Your task to perform on an android device: Search for energizer triple a on ebay.com, select the first entry, add it to the cart, then select checkout. Image 0: 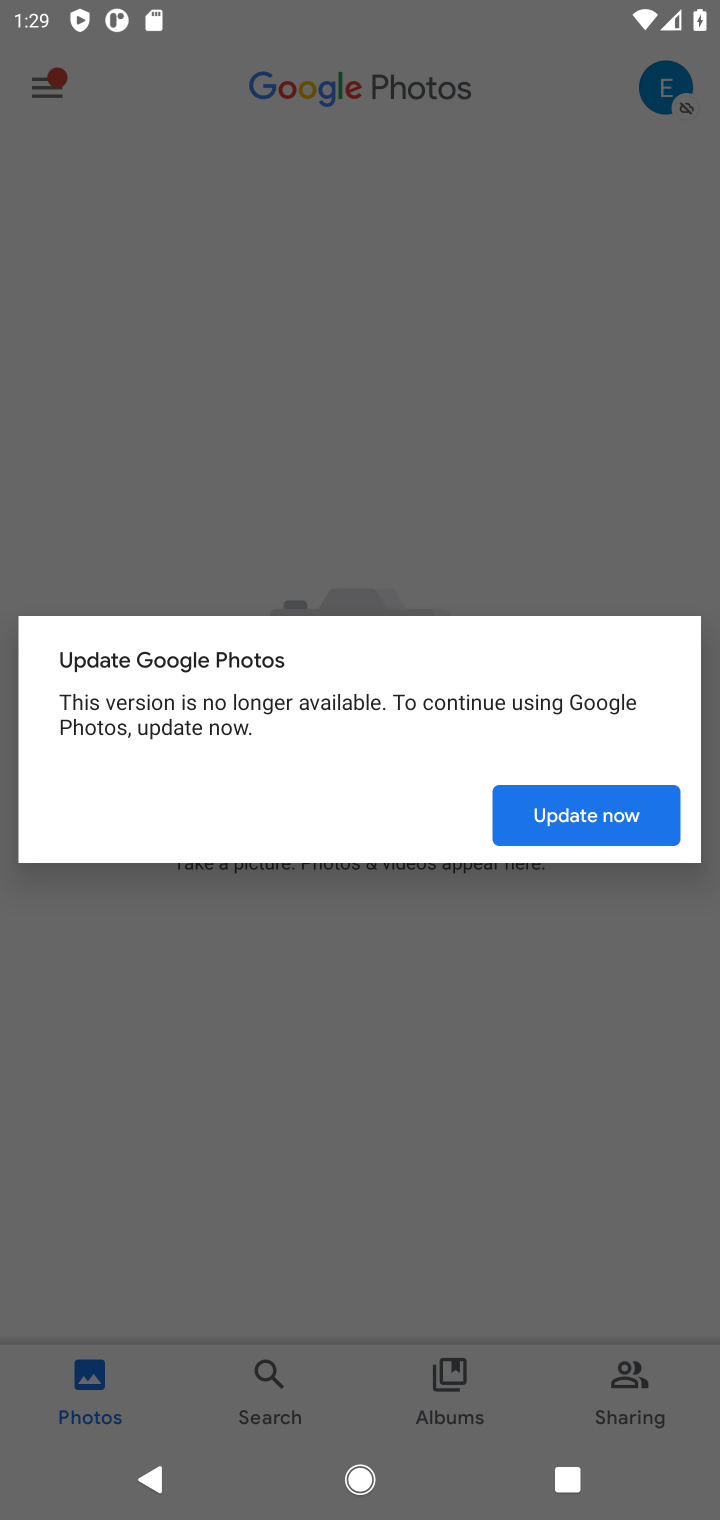
Step 0: press home button
Your task to perform on an android device: Search for energizer triple a on ebay.com, select the first entry, add it to the cart, then select checkout. Image 1: 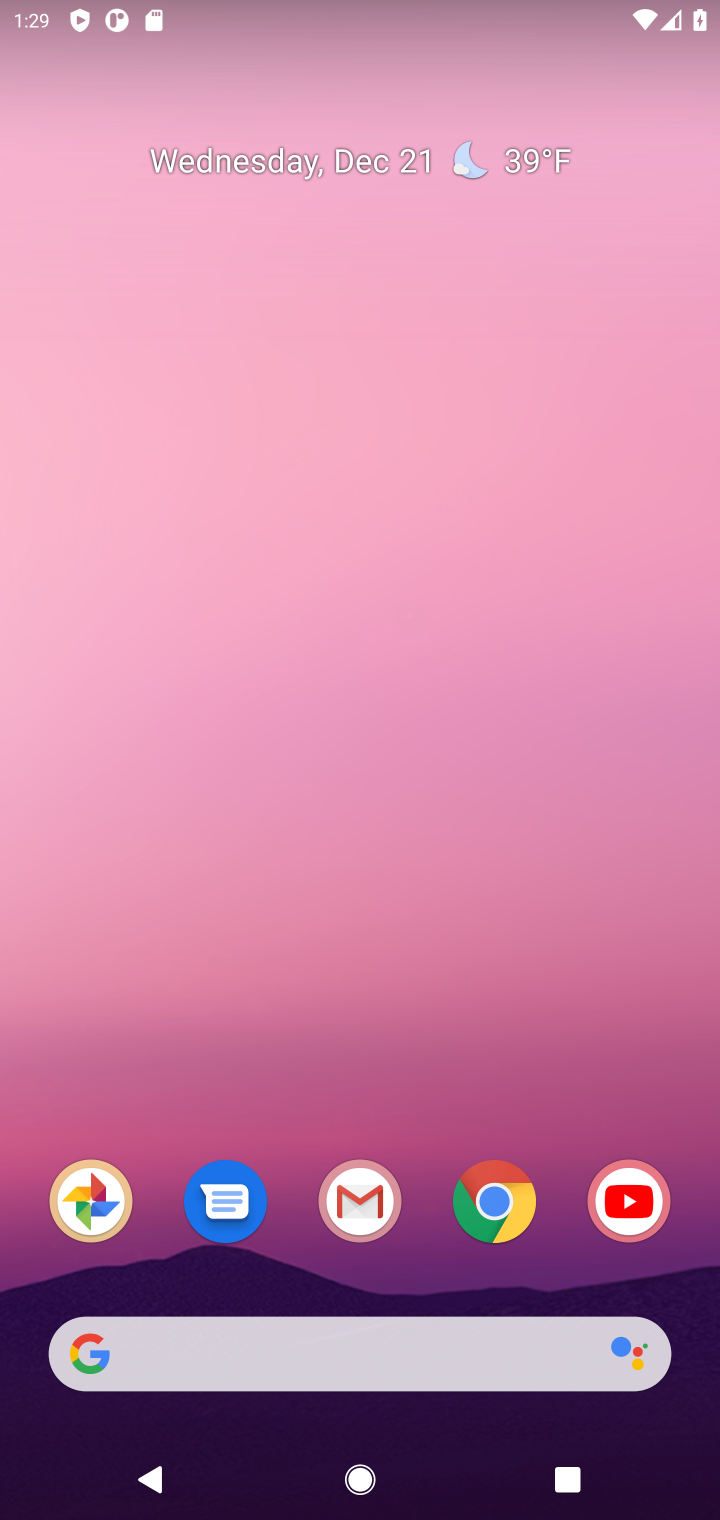
Step 1: click (509, 1215)
Your task to perform on an android device: Search for energizer triple a on ebay.com, select the first entry, add it to the cart, then select checkout. Image 2: 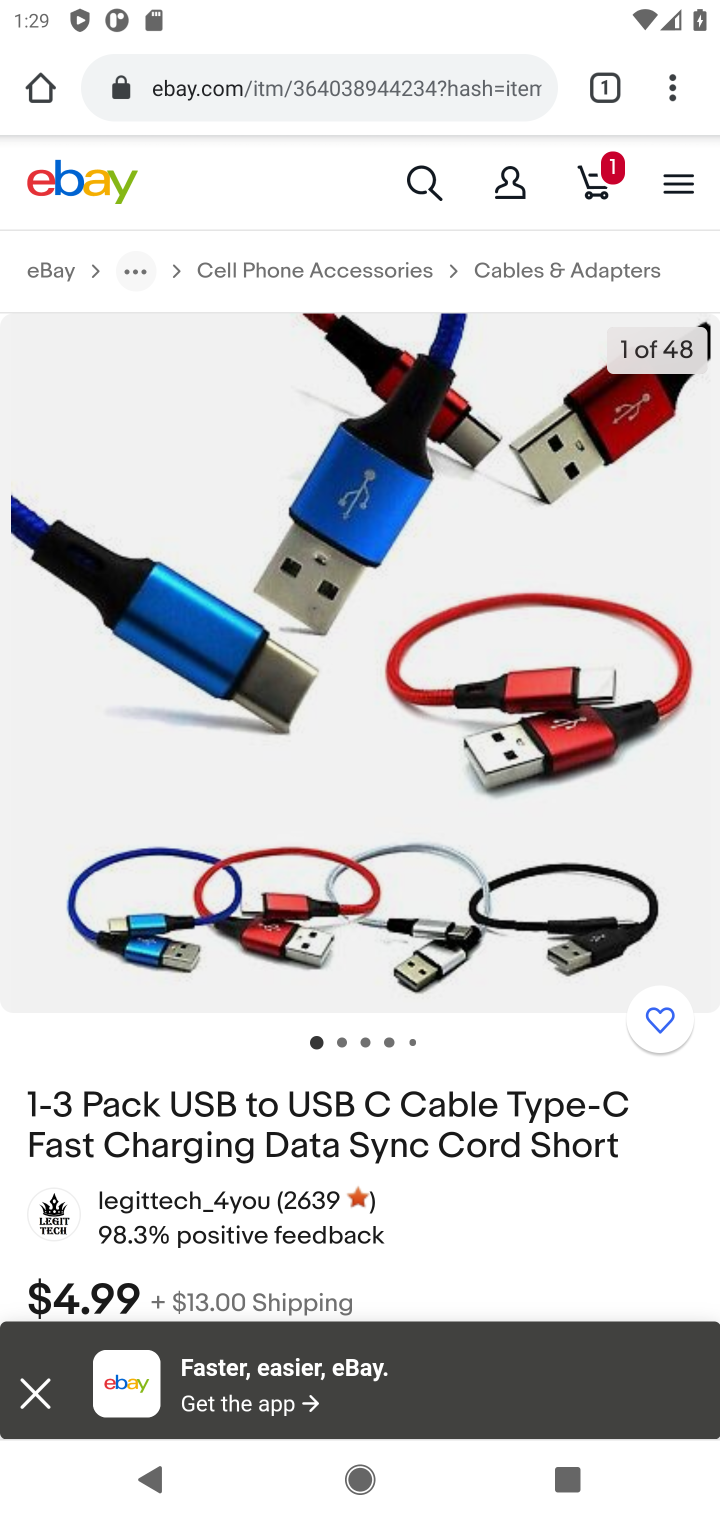
Step 2: click (424, 179)
Your task to perform on an android device: Search for energizer triple a on ebay.com, select the first entry, add it to the cart, then select checkout. Image 3: 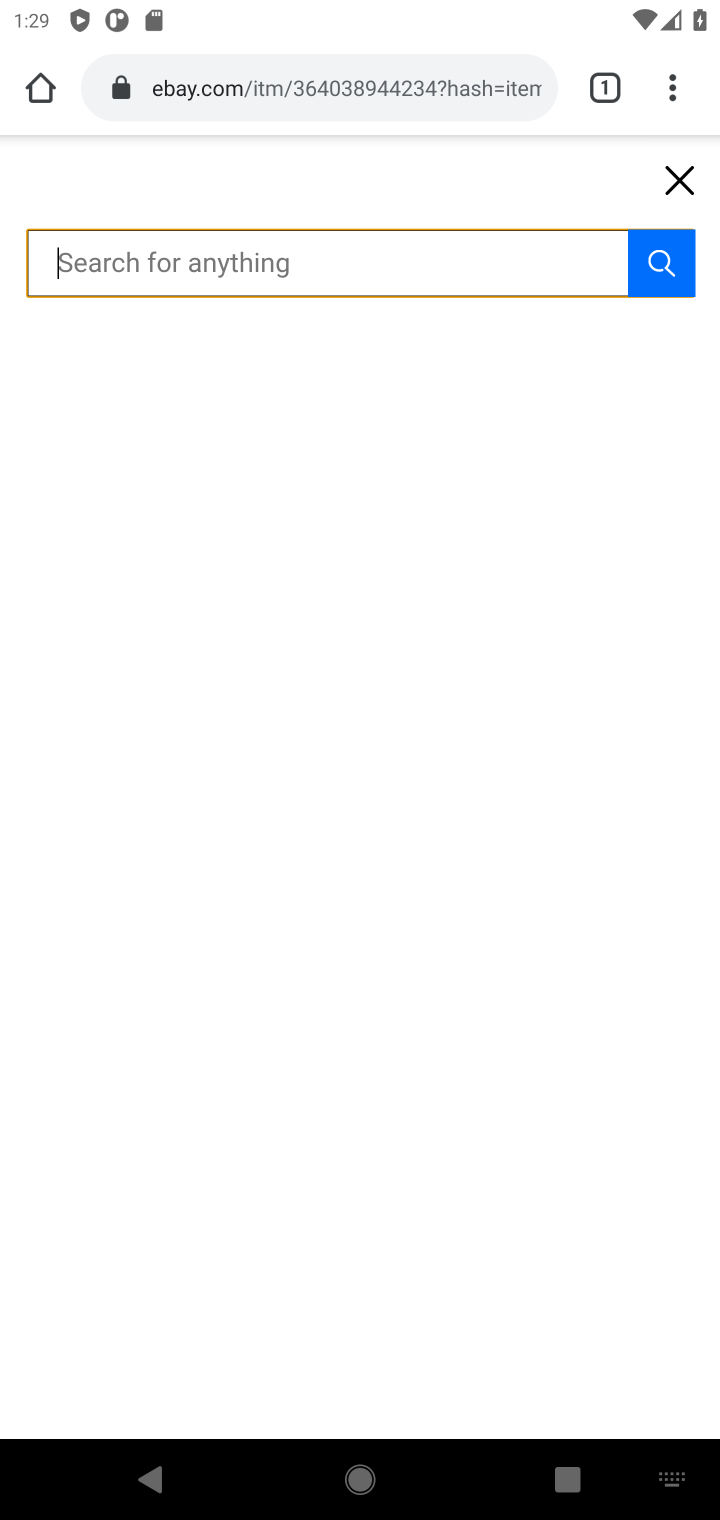
Step 3: type "energizer triple a "
Your task to perform on an android device: Search for energizer triple a on ebay.com, select the first entry, add it to the cart, then select checkout. Image 4: 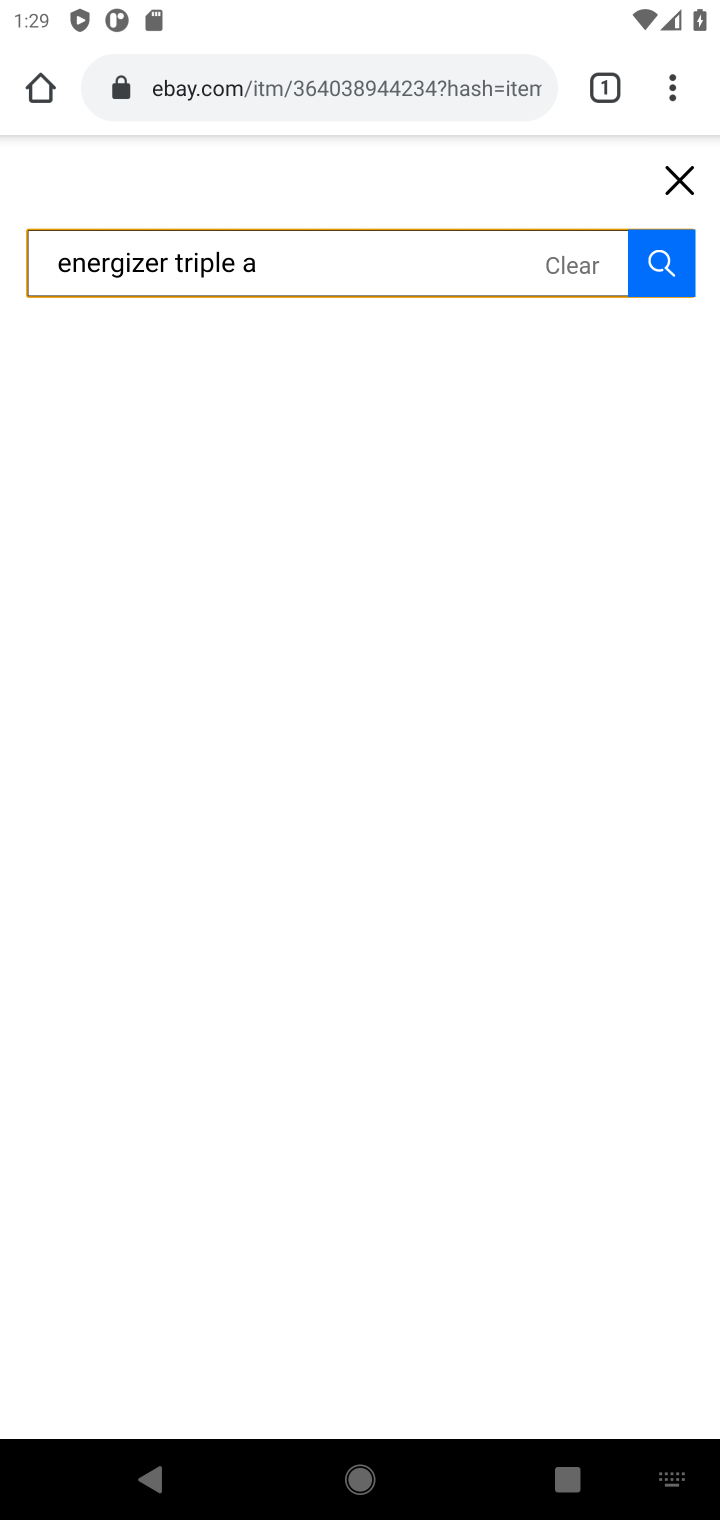
Step 4: click (654, 277)
Your task to perform on an android device: Search for energizer triple a on ebay.com, select the first entry, add it to the cart, then select checkout. Image 5: 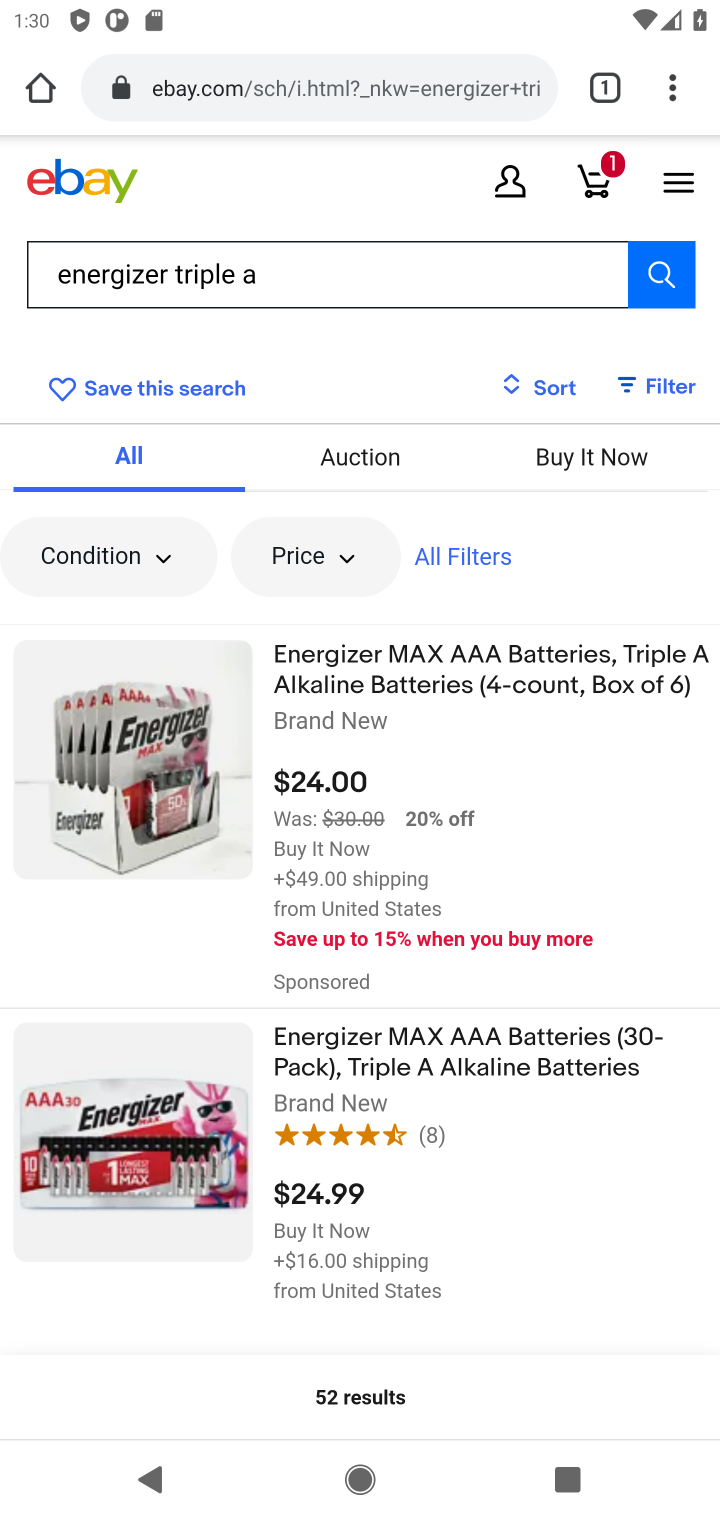
Step 5: click (370, 704)
Your task to perform on an android device: Search for energizer triple a on ebay.com, select the first entry, add it to the cart, then select checkout. Image 6: 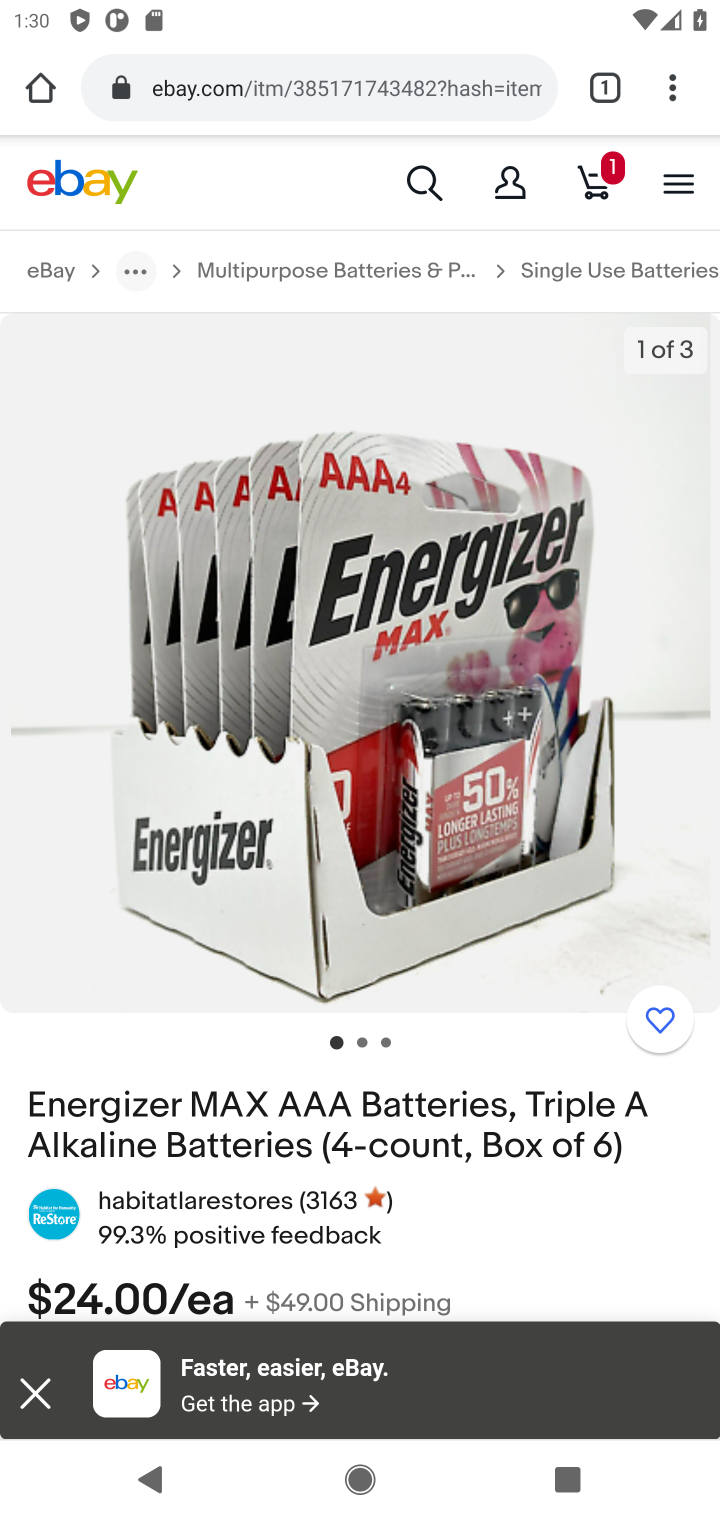
Step 6: drag from (323, 1055) to (305, 735)
Your task to perform on an android device: Search for energizer triple a on ebay.com, select the first entry, add it to the cart, then select checkout. Image 7: 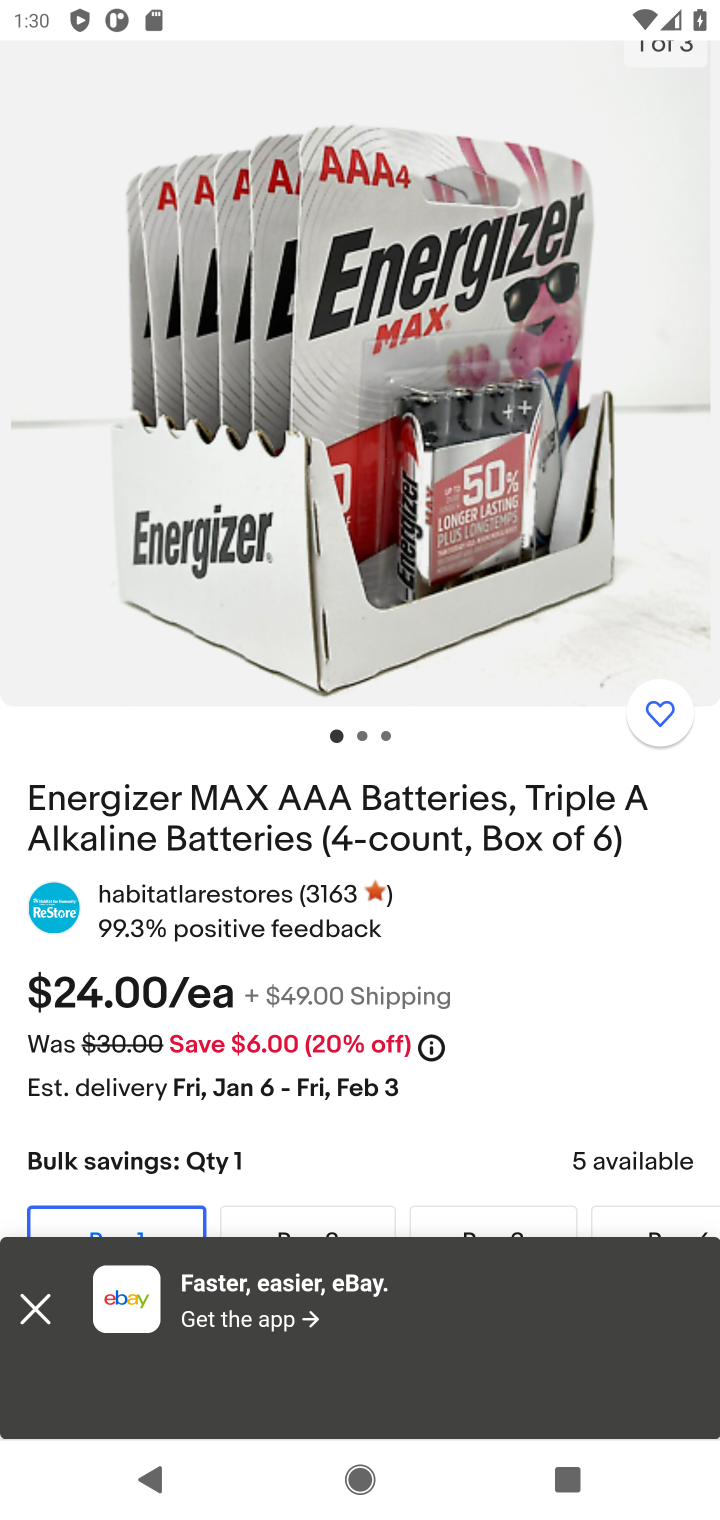
Step 7: drag from (309, 1142) to (313, 688)
Your task to perform on an android device: Search for energizer triple a on ebay.com, select the first entry, add it to the cart, then select checkout. Image 8: 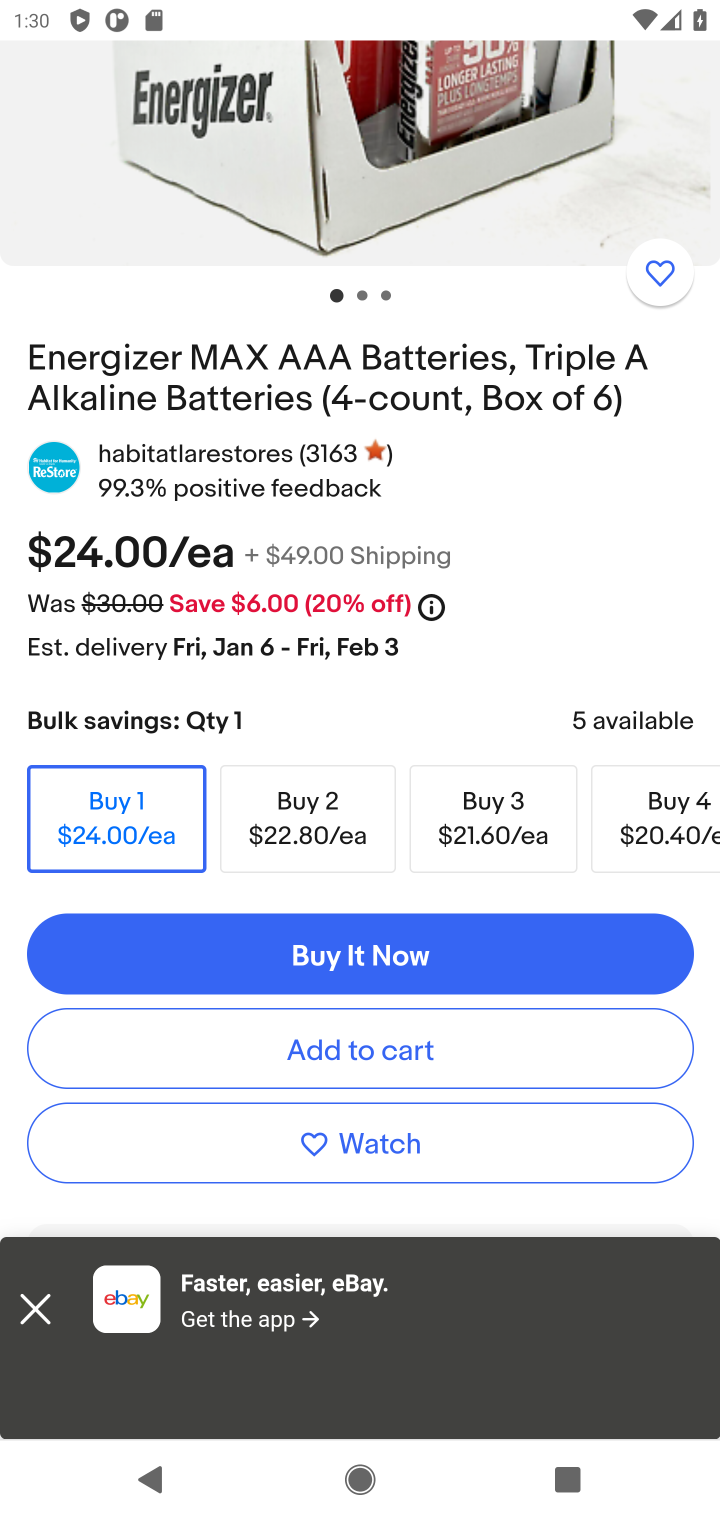
Step 8: click (337, 1053)
Your task to perform on an android device: Search for energizer triple a on ebay.com, select the first entry, add it to the cart, then select checkout. Image 9: 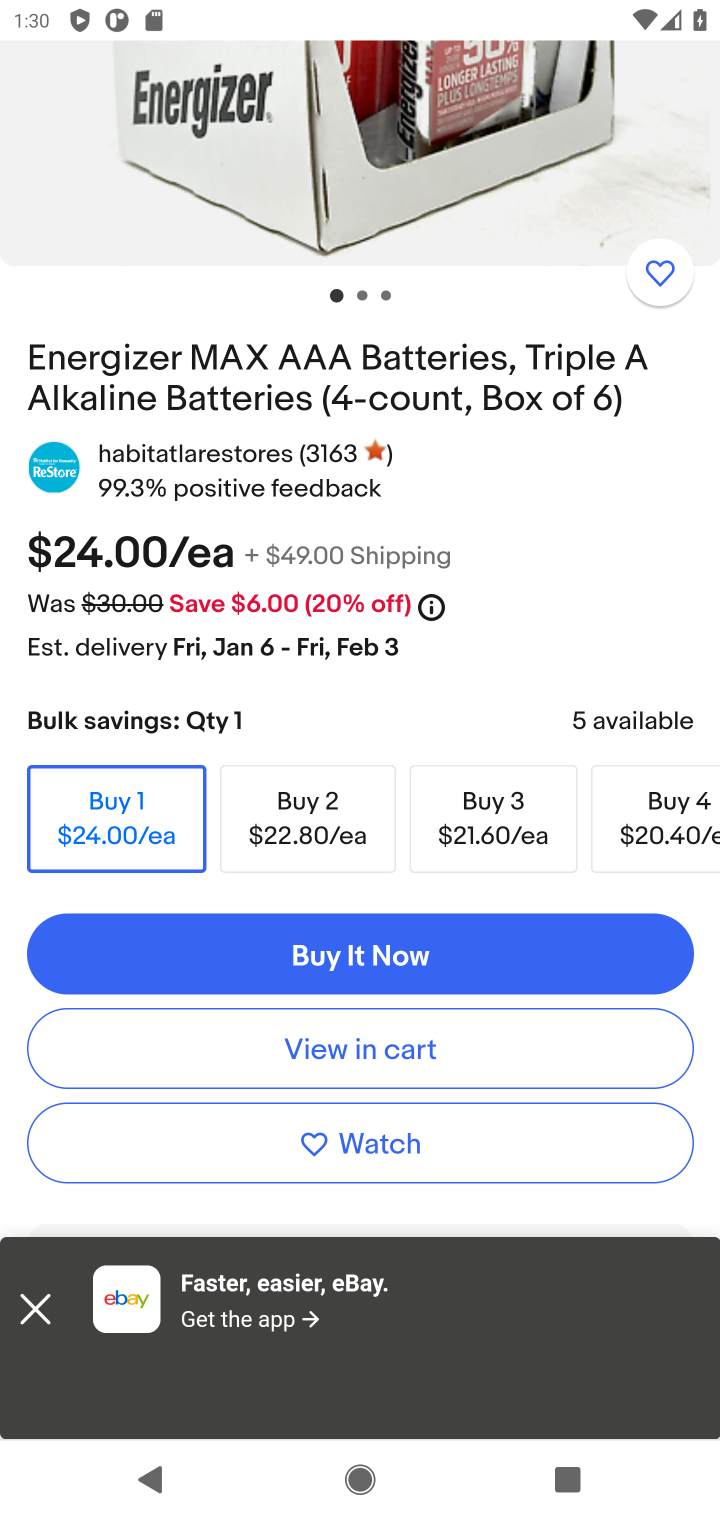
Step 9: click (337, 1053)
Your task to perform on an android device: Search for energizer triple a on ebay.com, select the first entry, add it to the cart, then select checkout. Image 10: 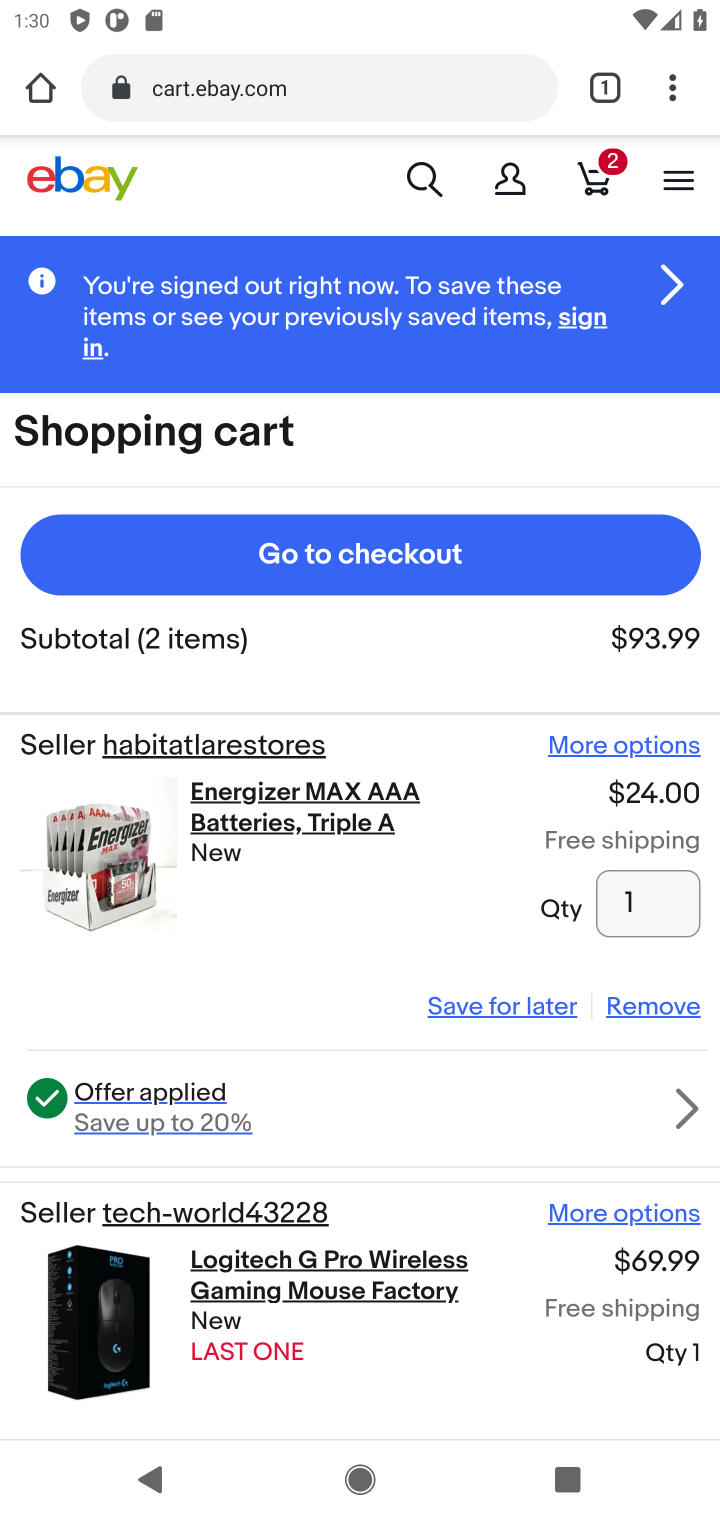
Step 10: click (321, 561)
Your task to perform on an android device: Search for energizer triple a on ebay.com, select the first entry, add it to the cart, then select checkout. Image 11: 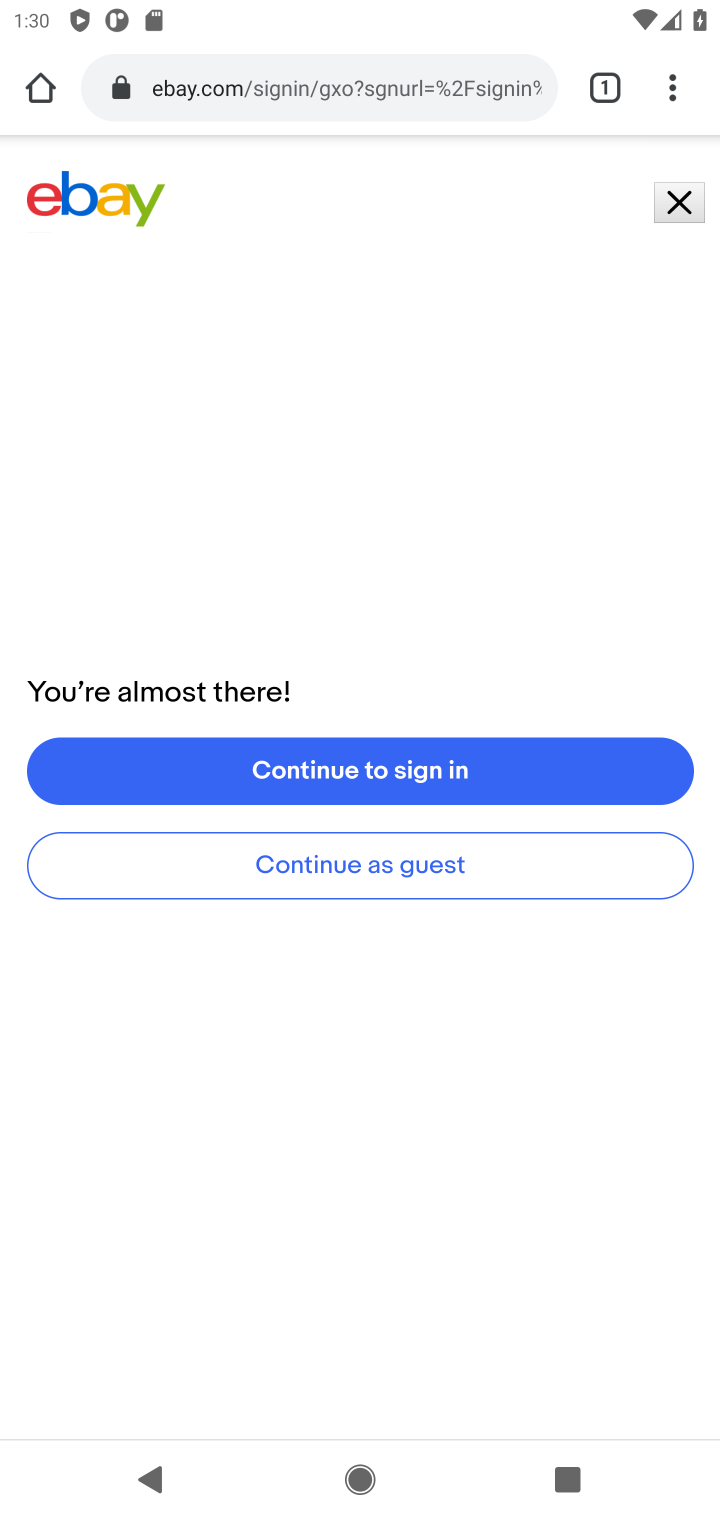
Step 11: task complete